Your task to perform on an android device: open the mobile data screen to see how much data has been used Image 0: 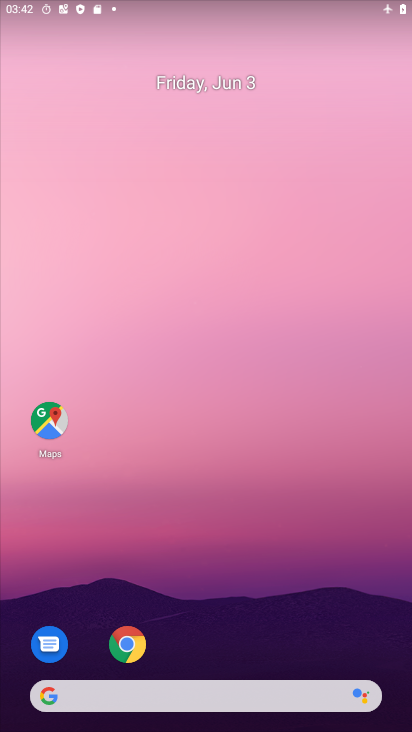
Step 0: drag from (203, 645) to (208, 198)
Your task to perform on an android device: open the mobile data screen to see how much data has been used Image 1: 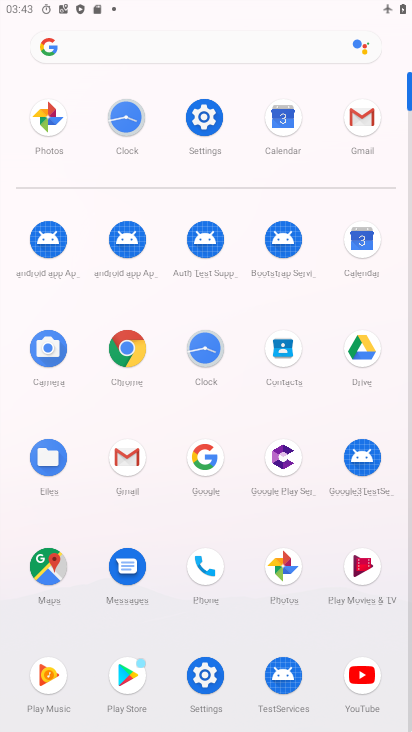
Step 1: click (209, 125)
Your task to perform on an android device: open the mobile data screen to see how much data has been used Image 2: 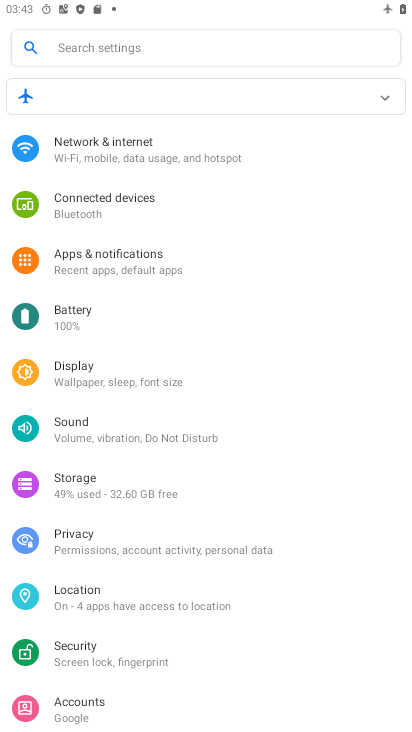
Step 2: click (139, 163)
Your task to perform on an android device: open the mobile data screen to see how much data has been used Image 3: 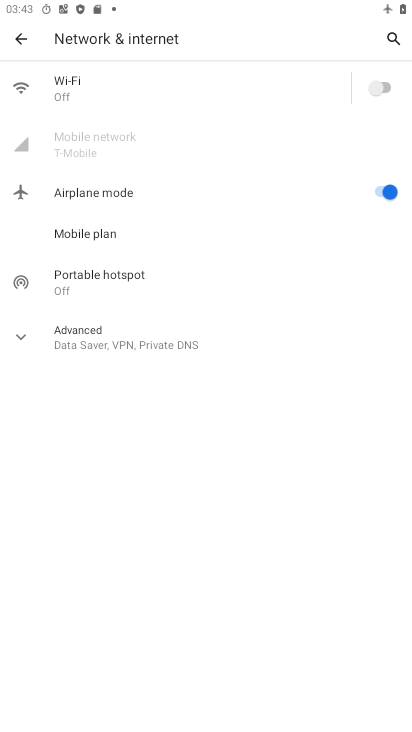
Step 3: click (139, 163)
Your task to perform on an android device: open the mobile data screen to see how much data has been used Image 4: 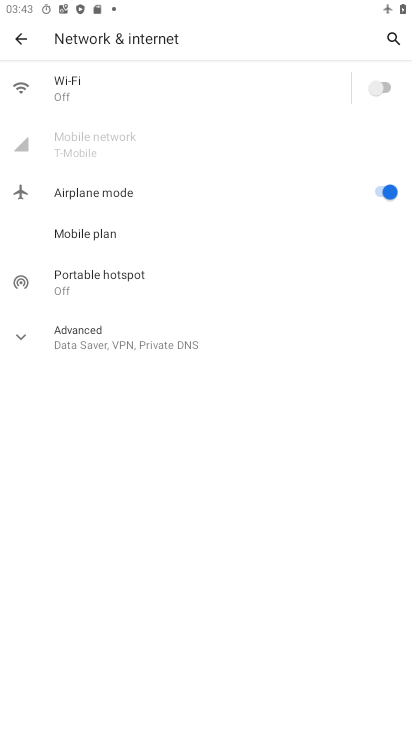
Step 4: task complete